Your task to perform on an android device: Do I have any events this weekend? Image 0: 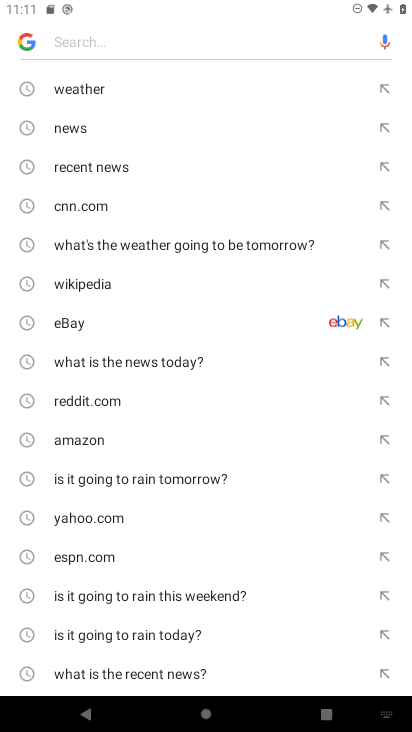
Step 0: press home button
Your task to perform on an android device: Do I have any events this weekend? Image 1: 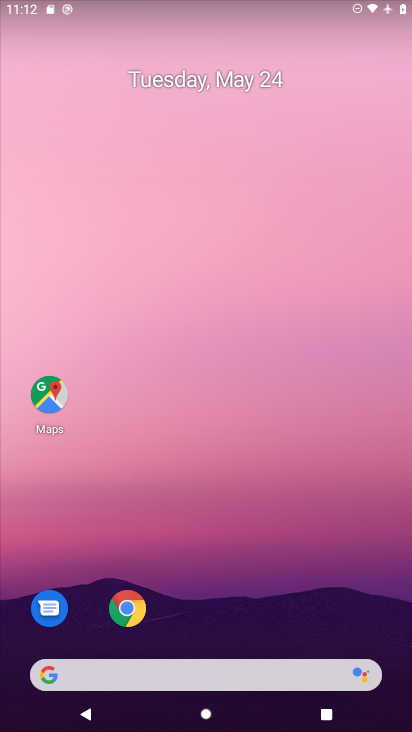
Step 1: click (393, 645)
Your task to perform on an android device: Do I have any events this weekend? Image 2: 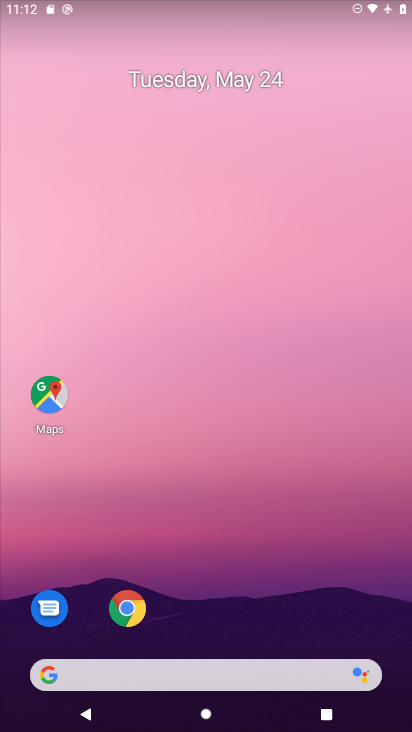
Step 2: drag from (393, 645) to (281, 47)
Your task to perform on an android device: Do I have any events this weekend? Image 3: 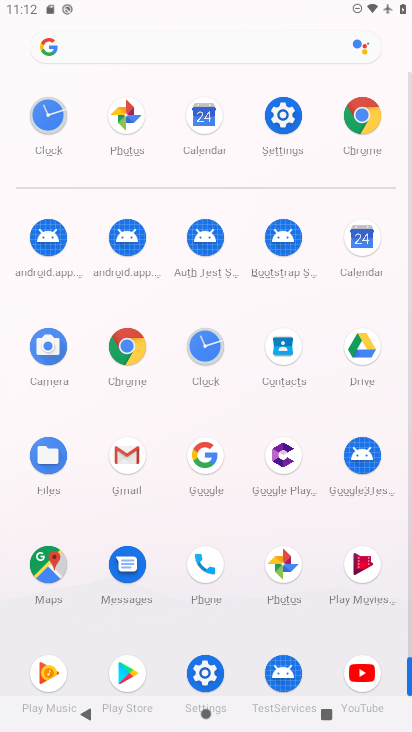
Step 3: click (358, 238)
Your task to perform on an android device: Do I have any events this weekend? Image 4: 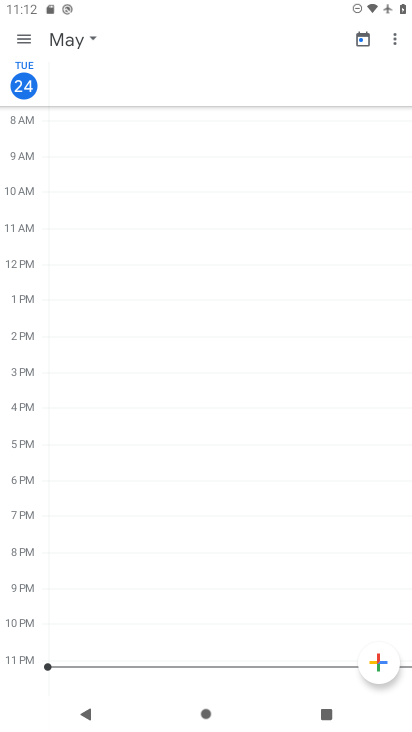
Step 4: click (21, 40)
Your task to perform on an android device: Do I have any events this weekend? Image 5: 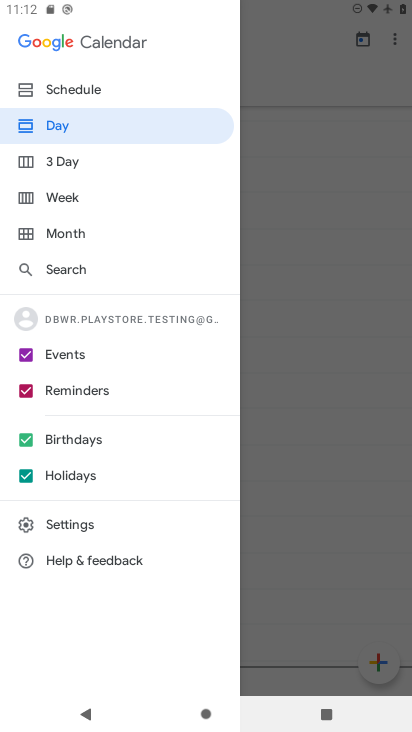
Step 5: click (59, 191)
Your task to perform on an android device: Do I have any events this weekend? Image 6: 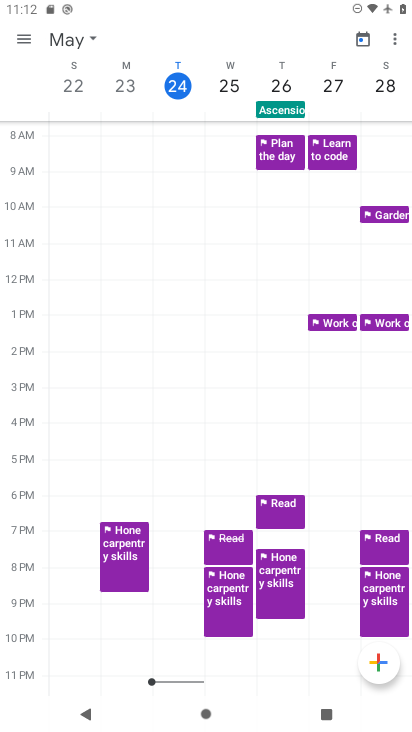
Step 6: click (34, 34)
Your task to perform on an android device: Do I have any events this weekend? Image 7: 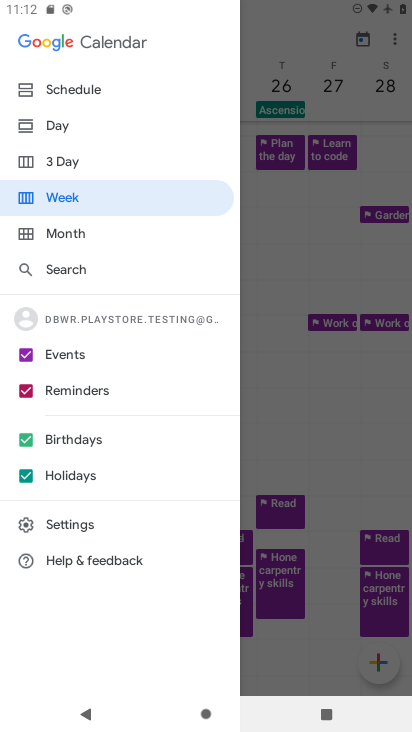
Step 7: click (78, 192)
Your task to perform on an android device: Do I have any events this weekend? Image 8: 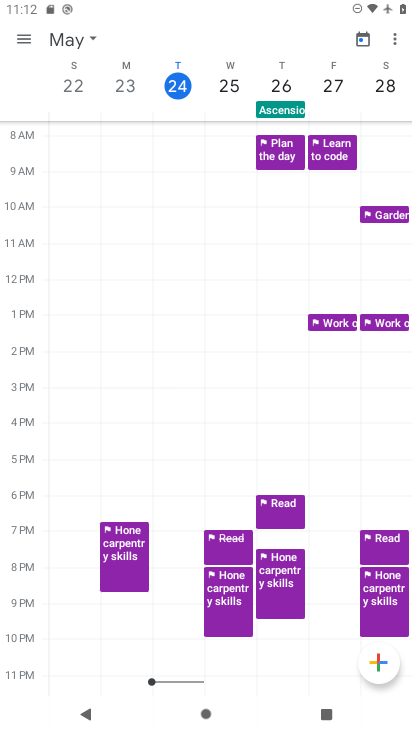
Step 8: task complete